Your task to perform on an android device: Go to calendar. Show me events next week Image 0: 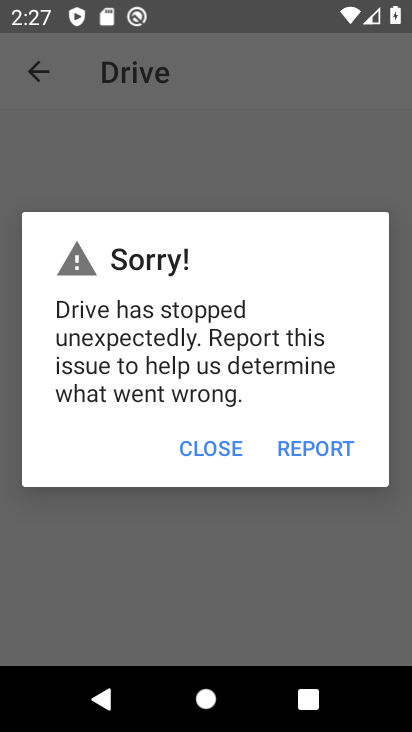
Step 0: press home button
Your task to perform on an android device: Go to calendar. Show me events next week Image 1: 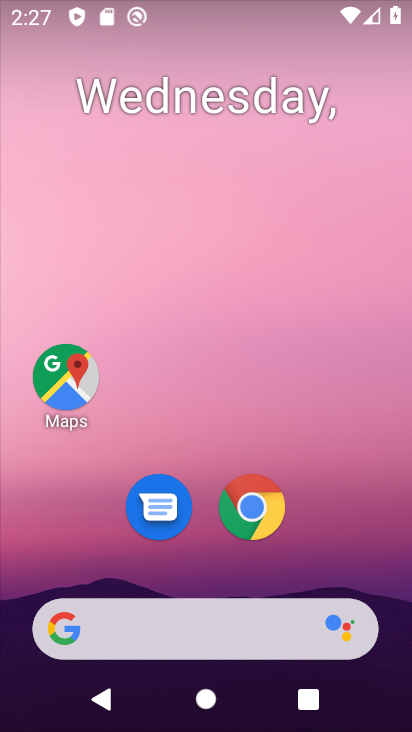
Step 1: drag from (237, 375) to (253, 109)
Your task to perform on an android device: Go to calendar. Show me events next week Image 2: 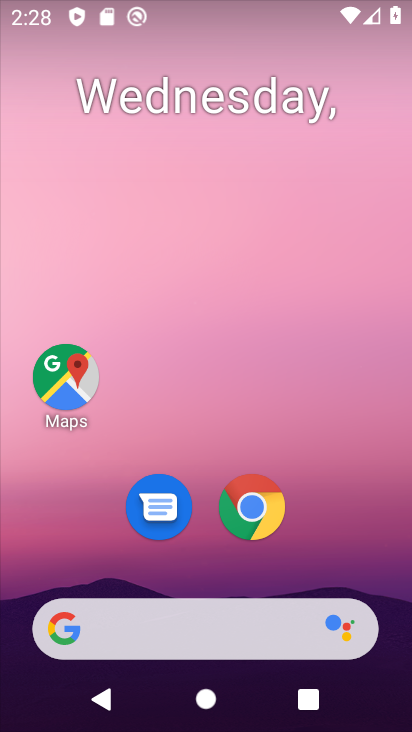
Step 2: drag from (217, 448) to (271, 99)
Your task to perform on an android device: Go to calendar. Show me events next week Image 3: 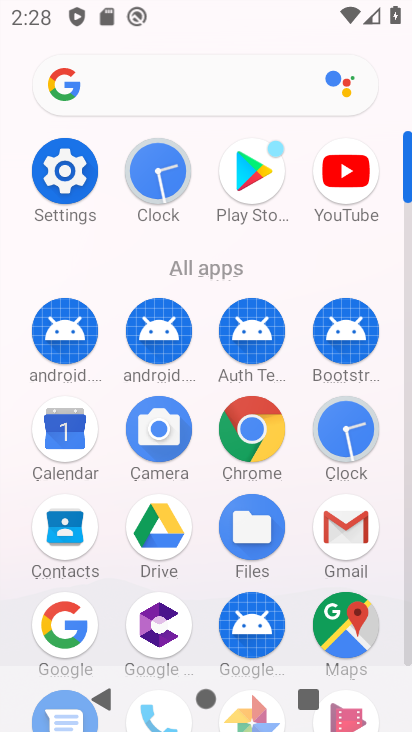
Step 3: click (54, 408)
Your task to perform on an android device: Go to calendar. Show me events next week Image 4: 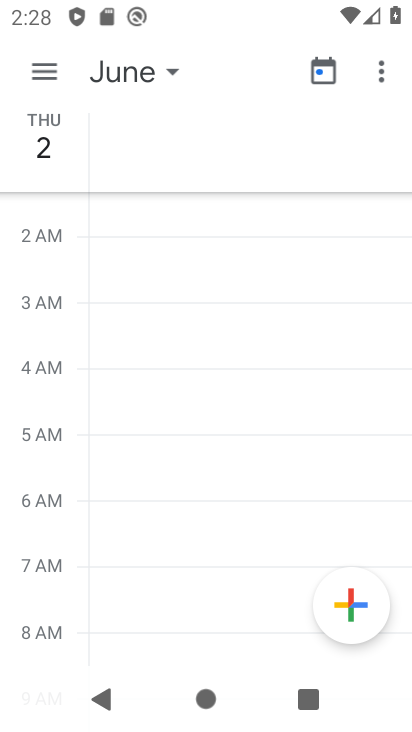
Step 4: click (43, 60)
Your task to perform on an android device: Go to calendar. Show me events next week Image 5: 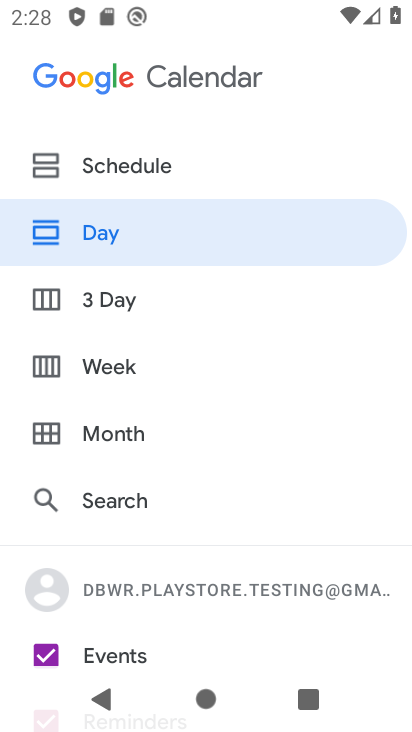
Step 5: click (109, 371)
Your task to perform on an android device: Go to calendar. Show me events next week Image 6: 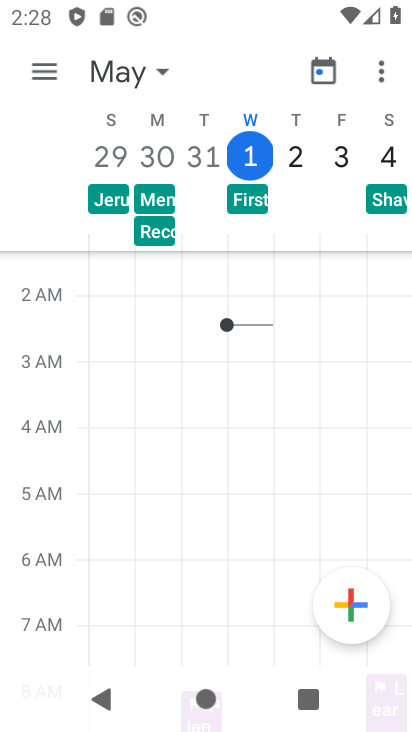
Step 6: click (142, 79)
Your task to perform on an android device: Go to calendar. Show me events next week Image 7: 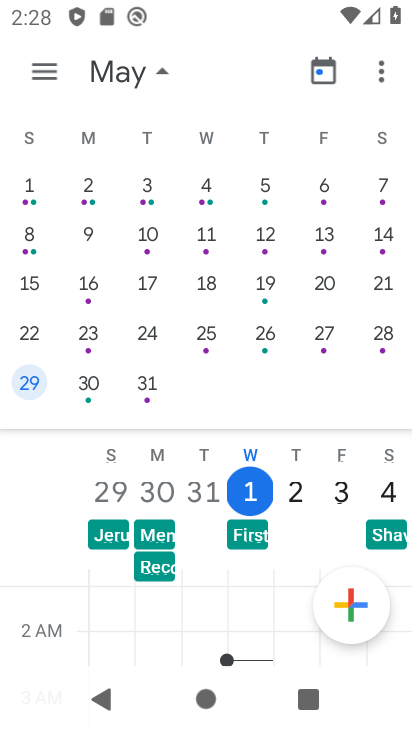
Step 7: drag from (352, 393) to (20, 299)
Your task to perform on an android device: Go to calendar. Show me events next week Image 8: 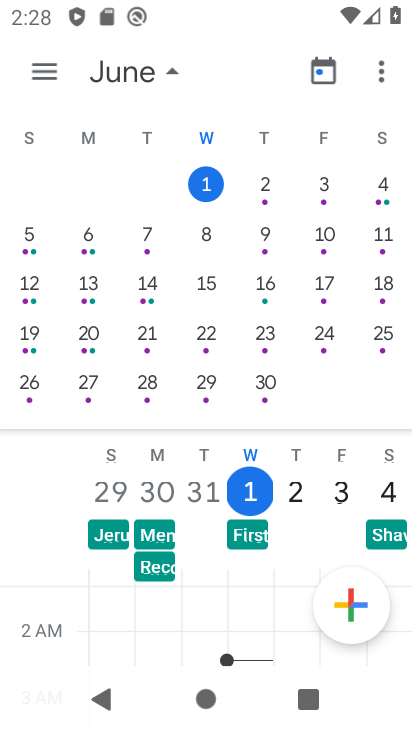
Step 8: click (151, 248)
Your task to perform on an android device: Go to calendar. Show me events next week Image 9: 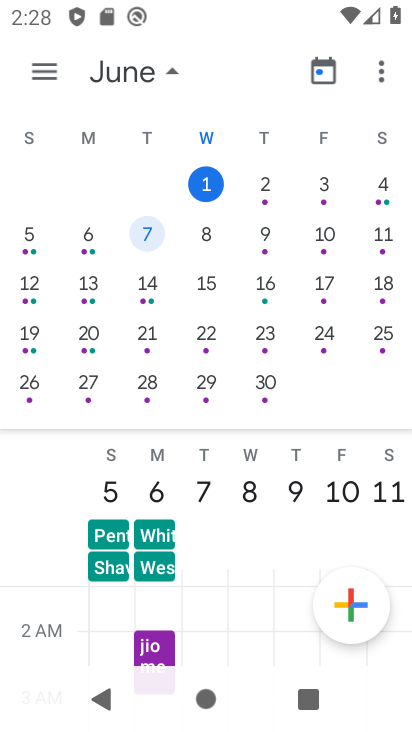
Step 9: task complete